Your task to perform on an android device: Where can I buy a nice beach umbrella? Image 0: 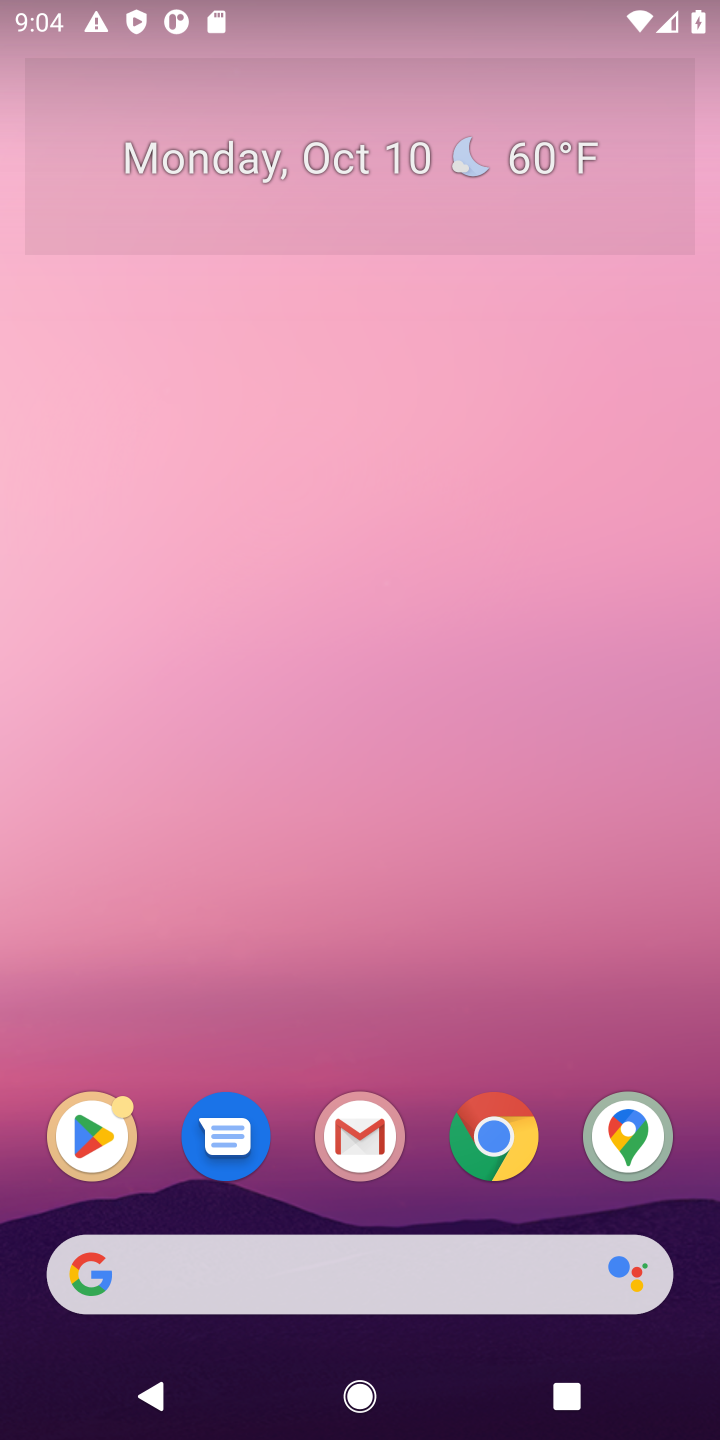
Step 0: click (512, 1260)
Your task to perform on an android device: Where can I buy a nice beach umbrella? Image 1: 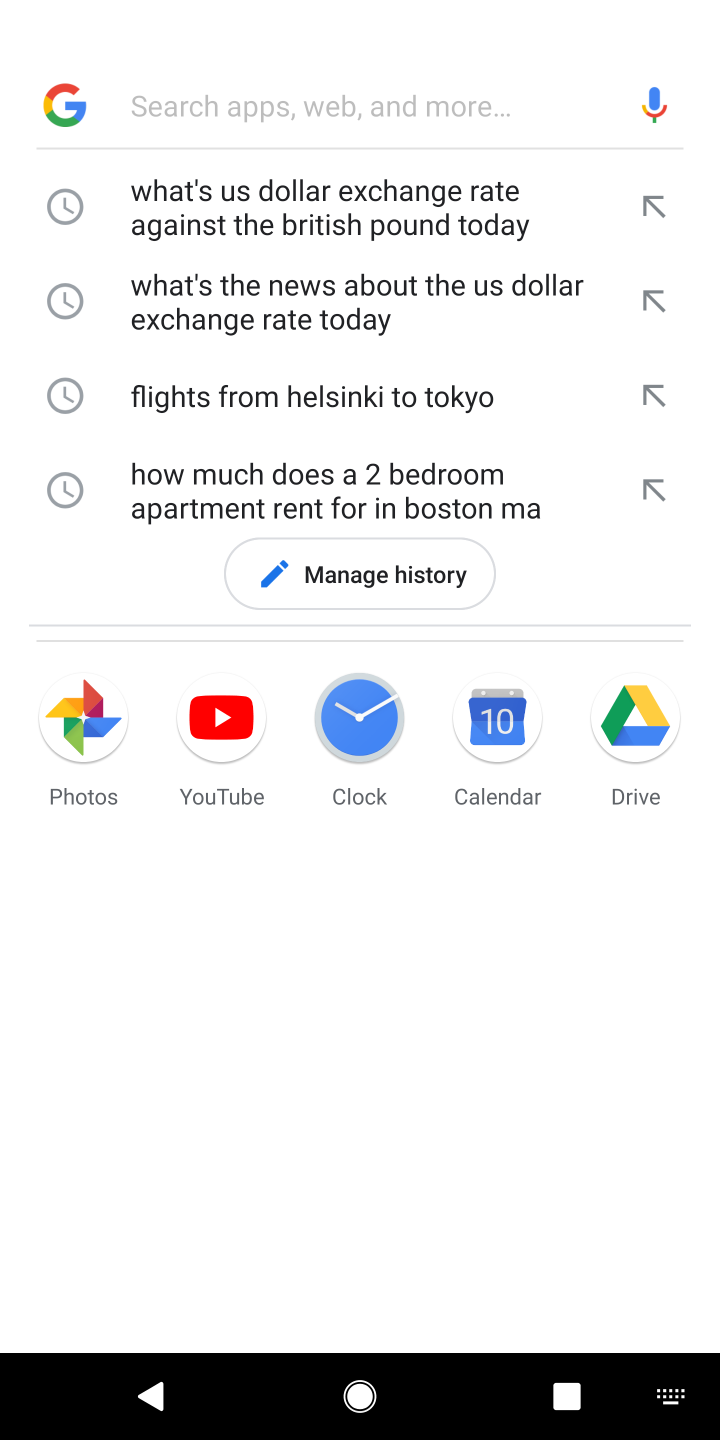
Step 1: type "Where can I buy a nice beach umbrella?"
Your task to perform on an android device: Where can I buy a nice beach umbrella? Image 2: 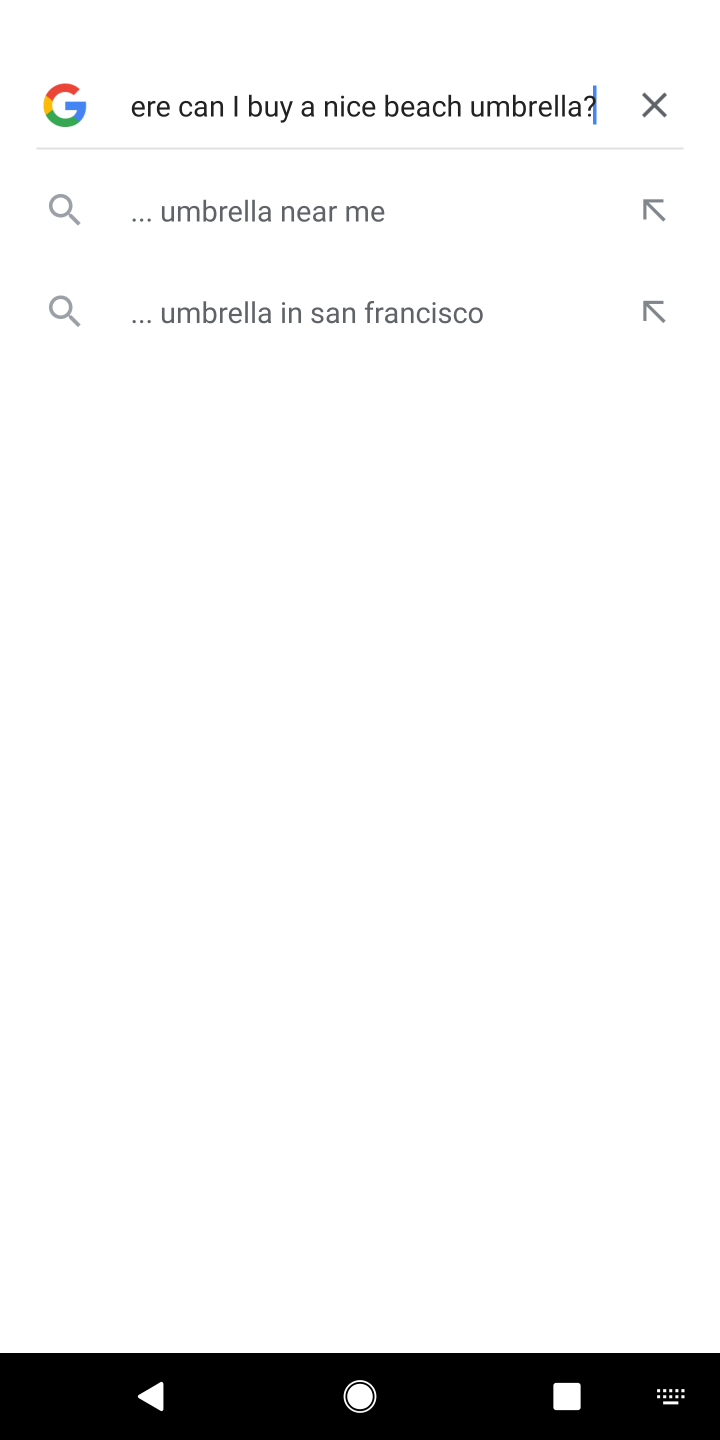
Step 2: click (266, 212)
Your task to perform on an android device: Where can I buy a nice beach umbrella? Image 3: 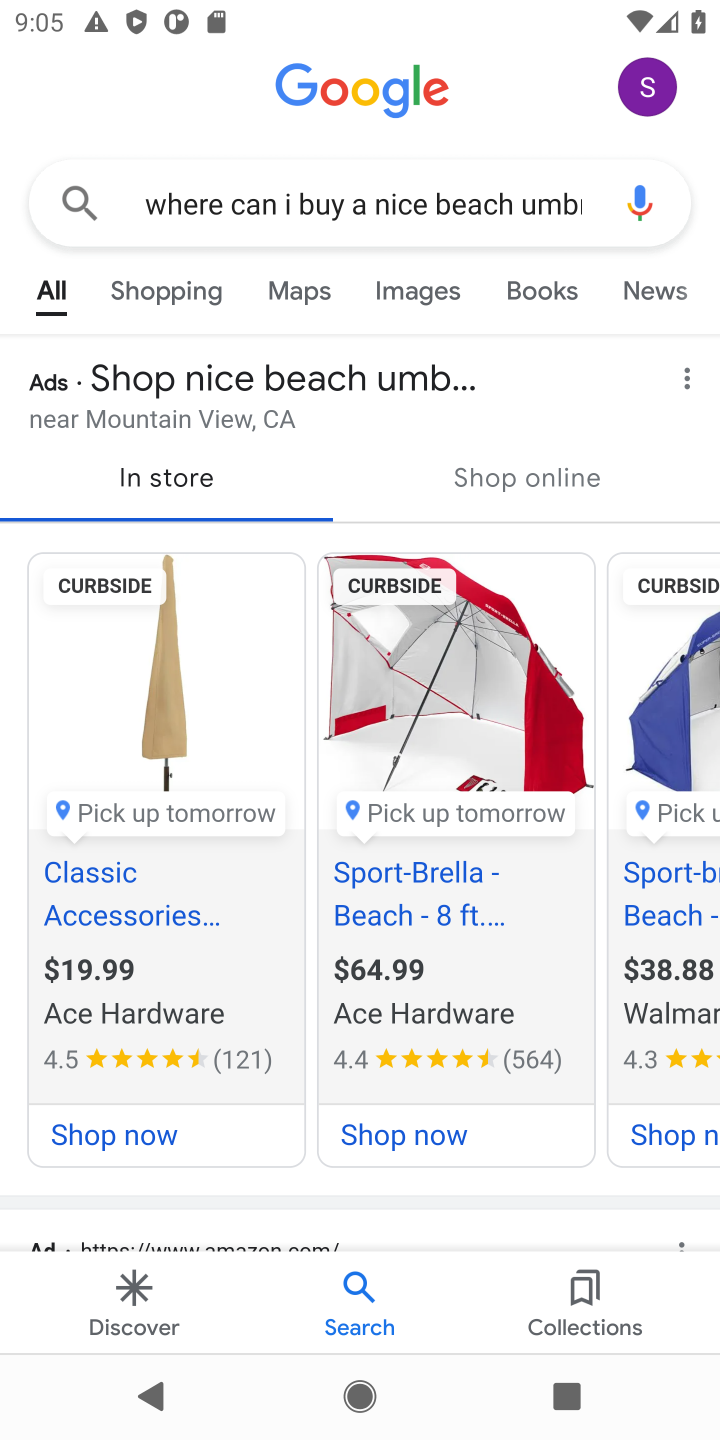
Step 3: task complete